Your task to perform on an android device: turn off picture-in-picture Image 0: 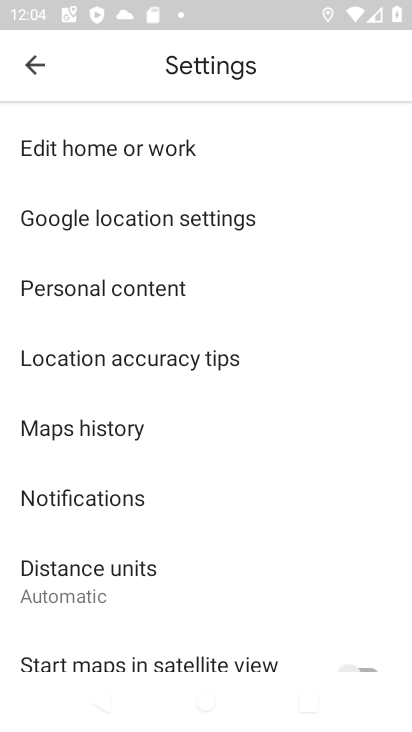
Step 0: press home button
Your task to perform on an android device: turn off picture-in-picture Image 1: 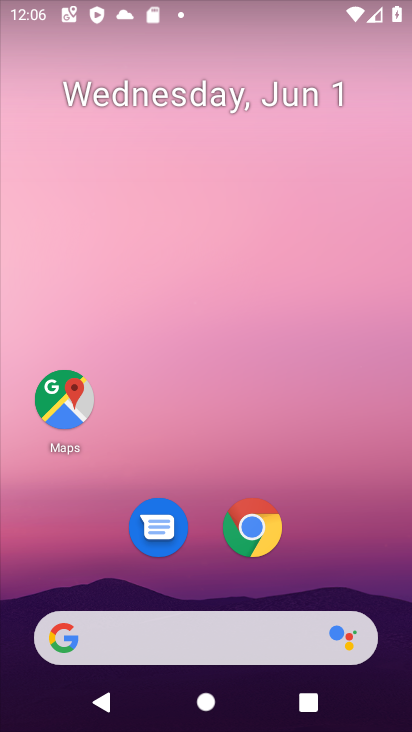
Step 1: click (265, 534)
Your task to perform on an android device: turn off picture-in-picture Image 2: 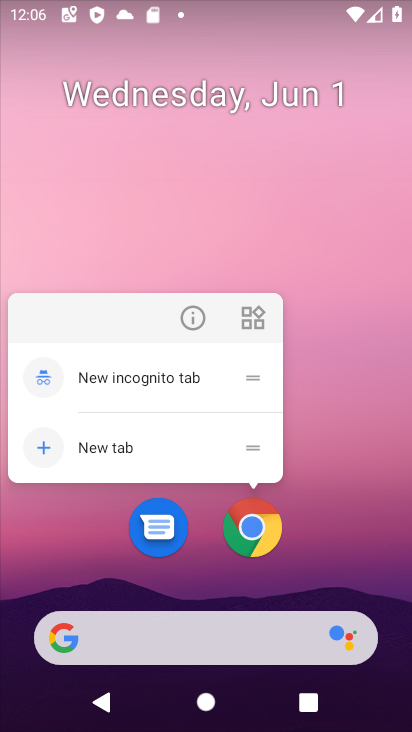
Step 2: click (184, 323)
Your task to perform on an android device: turn off picture-in-picture Image 3: 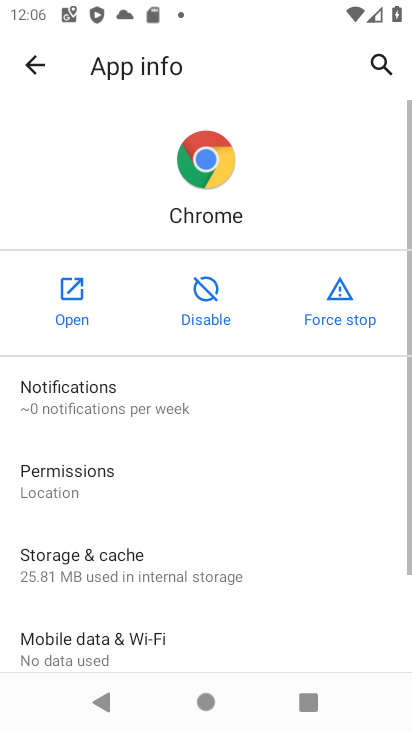
Step 3: drag from (271, 602) to (269, 31)
Your task to perform on an android device: turn off picture-in-picture Image 4: 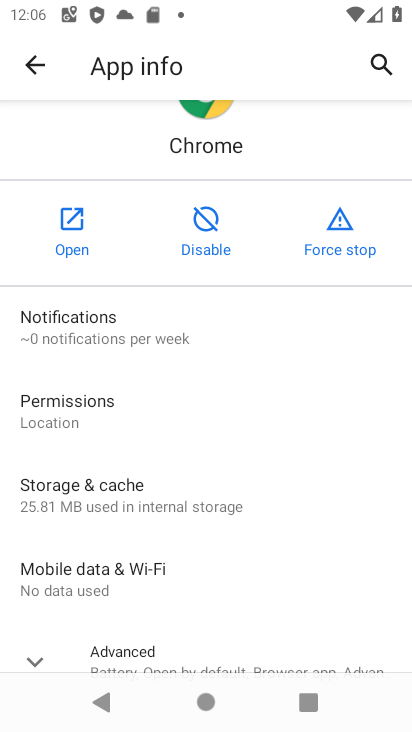
Step 4: click (229, 664)
Your task to perform on an android device: turn off picture-in-picture Image 5: 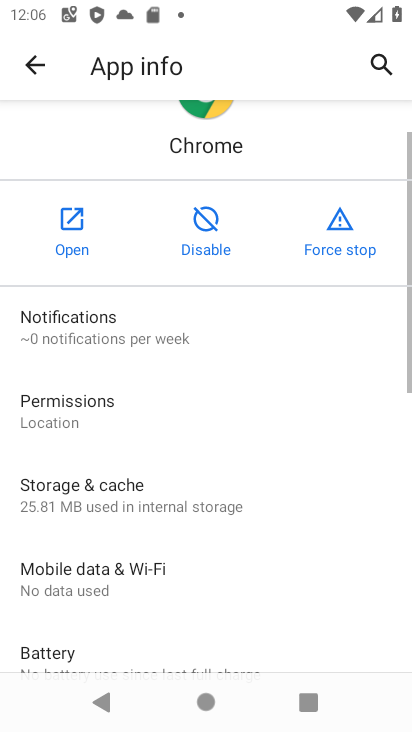
Step 5: drag from (225, 612) to (329, 22)
Your task to perform on an android device: turn off picture-in-picture Image 6: 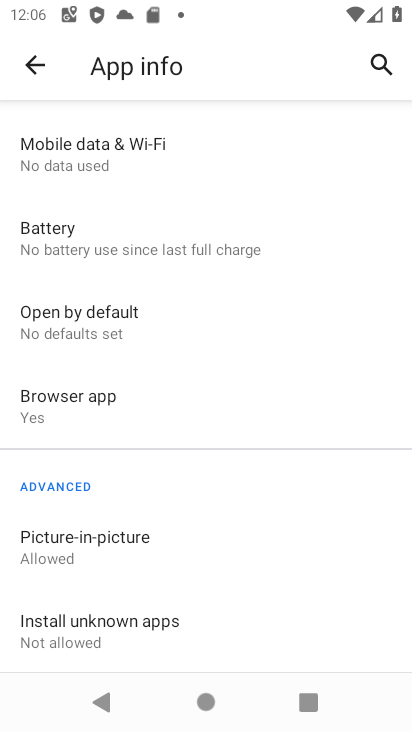
Step 6: click (145, 542)
Your task to perform on an android device: turn off picture-in-picture Image 7: 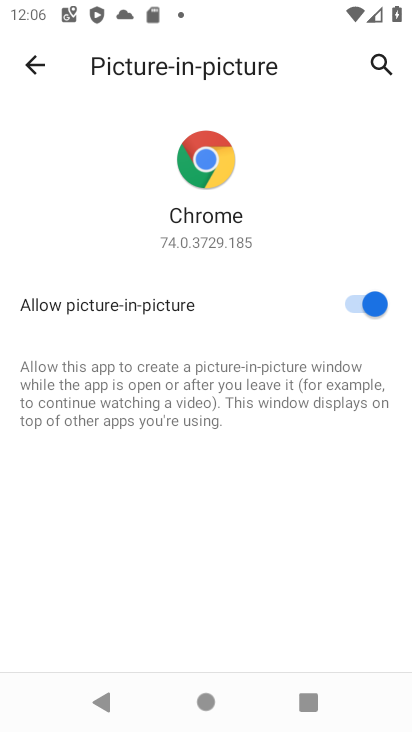
Step 7: click (372, 308)
Your task to perform on an android device: turn off picture-in-picture Image 8: 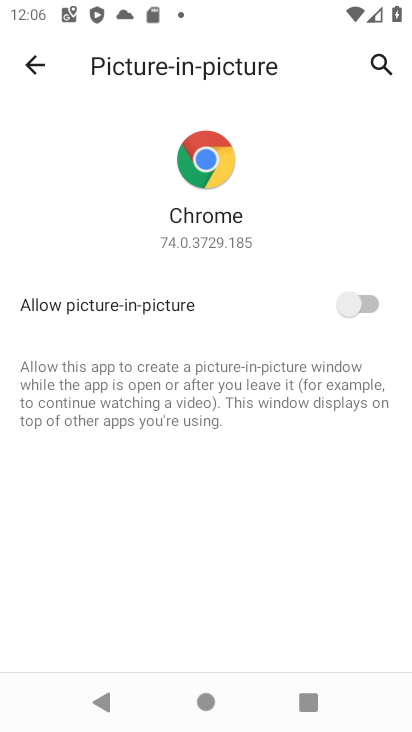
Step 8: task complete